Your task to perform on an android device: see creations saved in the google photos Image 0: 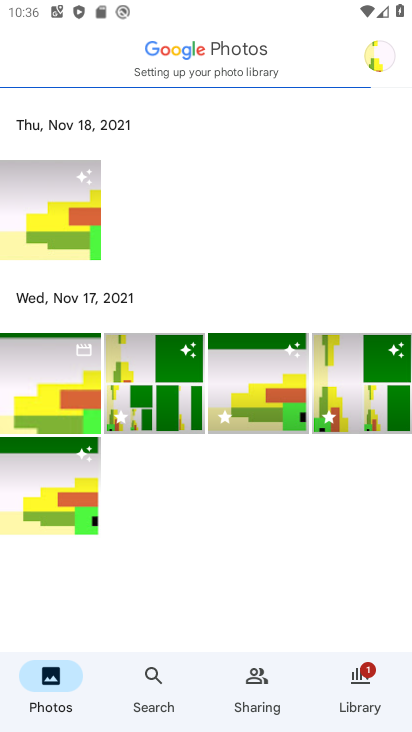
Step 0: press home button
Your task to perform on an android device: see creations saved in the google photos Image 1: 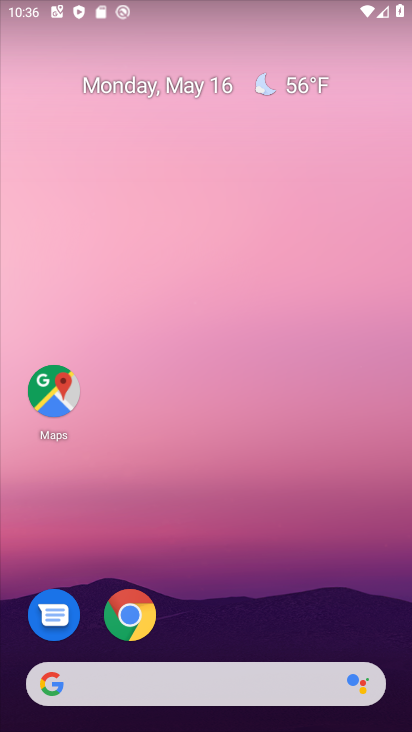
Step 1: drag from (181, 700) to (291, 234)
Your task to perform on an android device: see creations saved in the google photos Image 2: 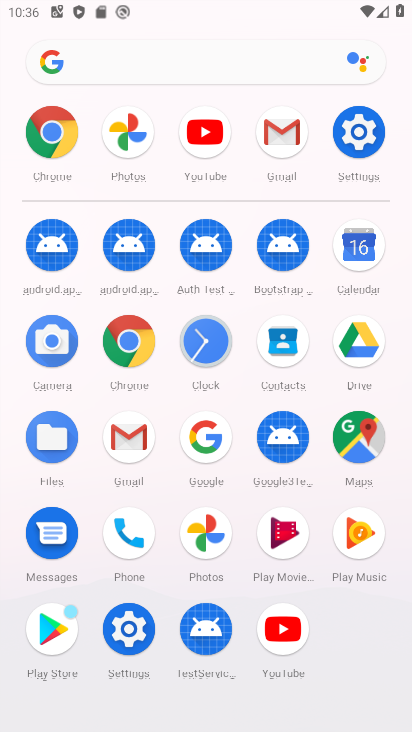
Step 2: click (212, 545)
Your task to perform on an android device: see creations saved in the google photos Image 3: 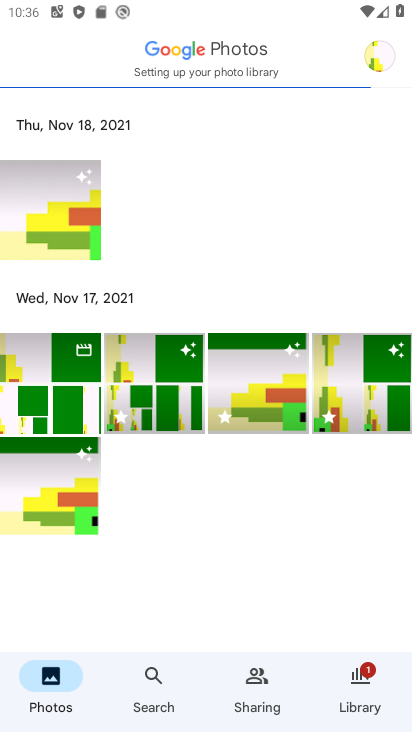
Step 3: click (69, 257)
Your task to perform on an android device: see creations saved in the google photos Image 4: 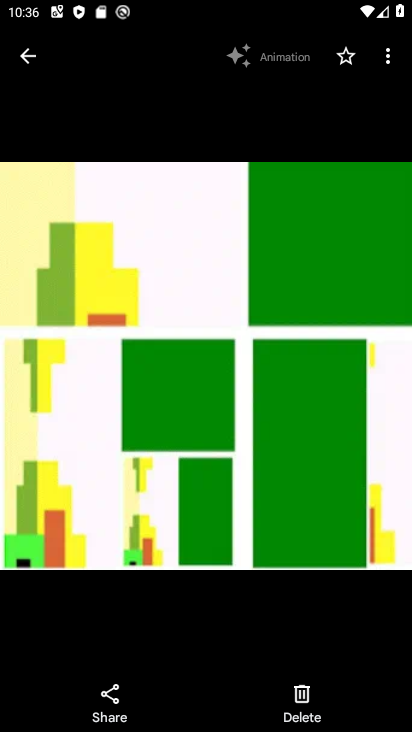
Step 4: click (384, 72)
Your task to perform on an android device: see creations saved in the google photos Image 5: 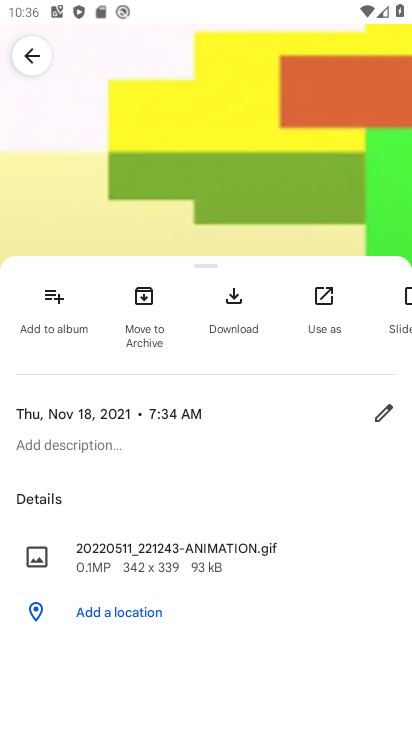
Step 5: task complete